Your task to perform on an android device: open the mobile data screen to see how much data has been used Image 0: 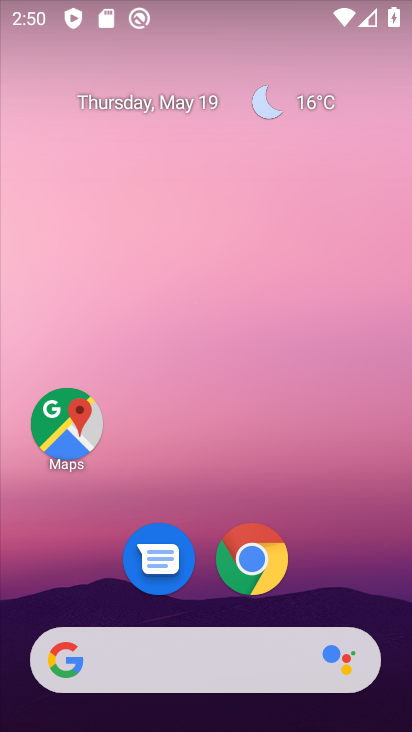
Step 0: drag from (217, 619) to (224, 200)
Your task to perform on an android device: open the mobile data screen to see how much data has been used Image 1: 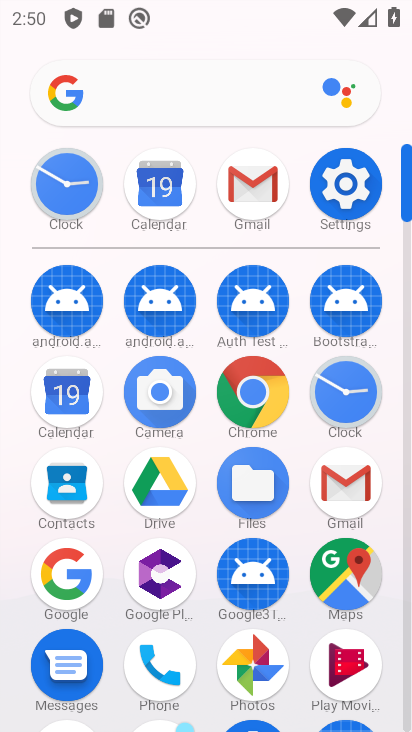
Step 1: click (322, 208)
Your task to perform on an android device: open the mobile data screen to see how much data has been used Image 2: 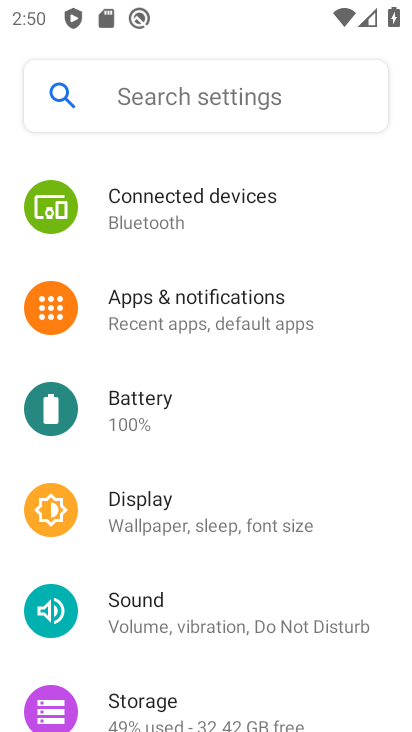
Step 2: drag from (191, 242) to (207, 603)
Your task to perform on an android device: open the mobile data screen to see how much data has been used Image 3: 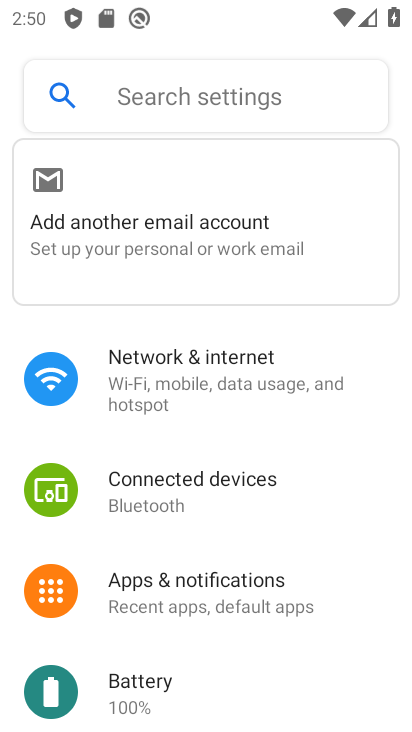
Step 3: click (203, 358)
Your task to perform on an android device: open the mobile data screen to see how much data has been used Image 4: 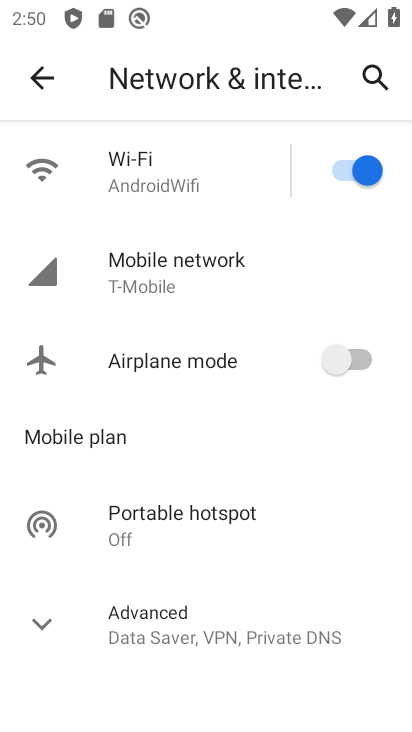
Step 4: click (203, 290)
Your task to perform on an android device: open the mobile data screen to see how much data has been used Image 5: 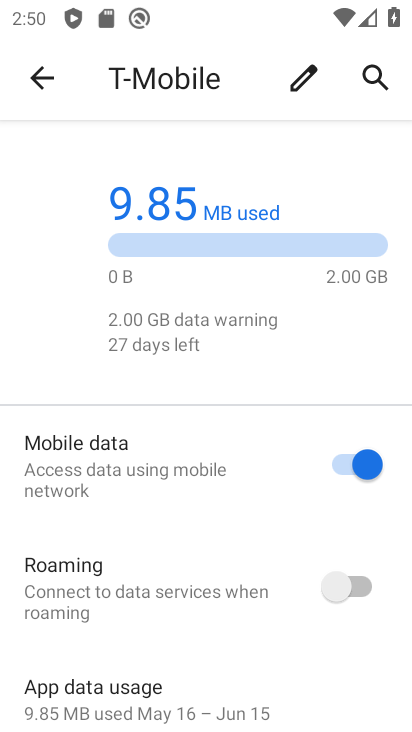
Step 5: drag from (137, 578) to (163, 364)
Your task to perform on an android device: open the mobile data screen to see how much data has been used Image 6: 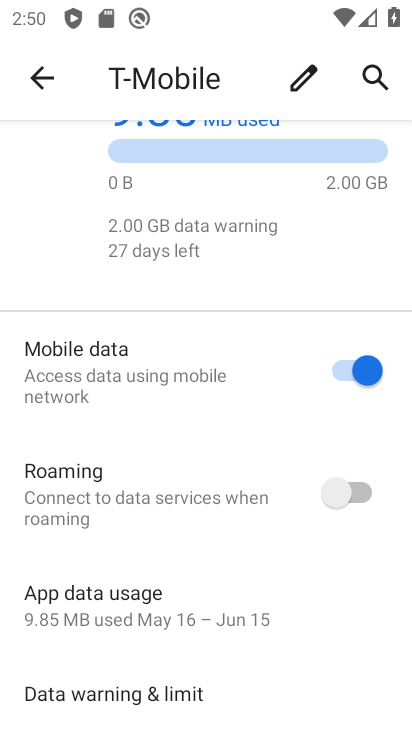
Step 6: drag from (198, 596) to (231, 465)
Your task to perform on an android device: open the mobile data screen to see how much data has been used Image 7: 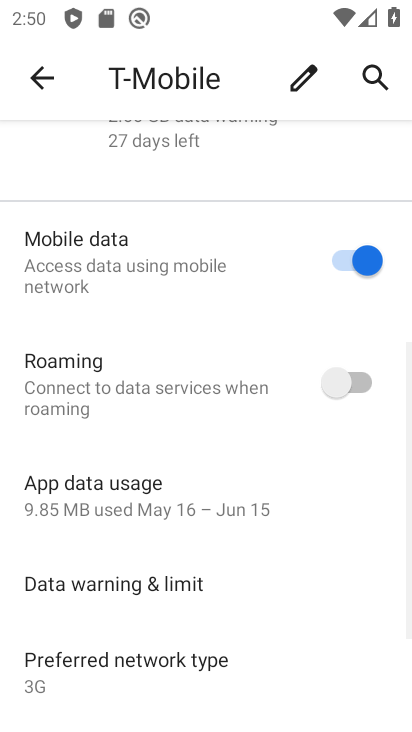
Step 7: click (225, 488)
Your task to perform on an android device: open the mobile data screen to see how much data has been used Image 8: 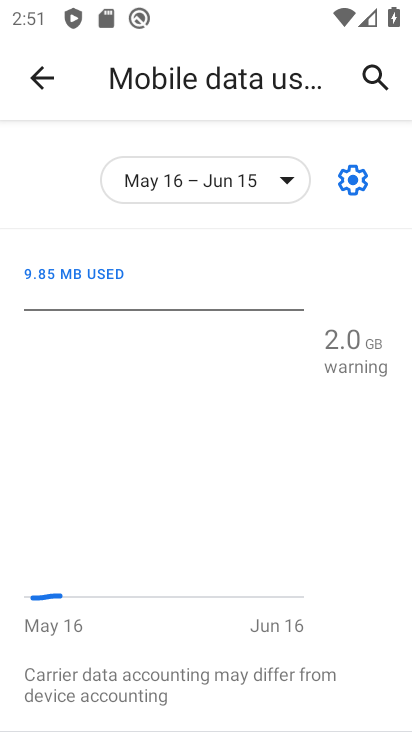
Step 8: task complete